Your task to perform on an android device: Open Youtube and go to the subscriptions tab Image 0: 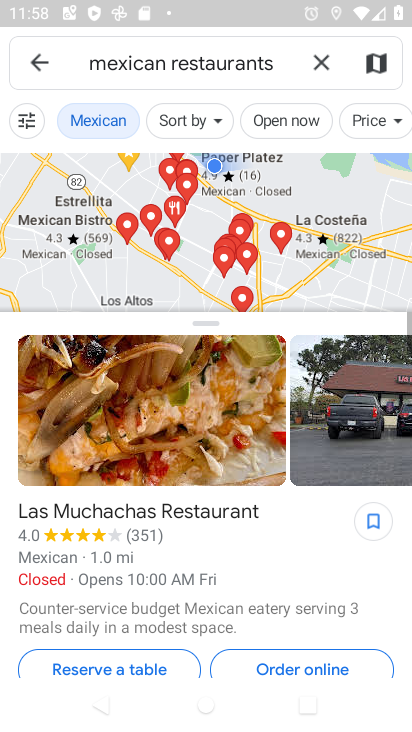
Step 0: press home button
Your task to perform on an android device: Open Youtube and go to the subscriptions tab Image 1: 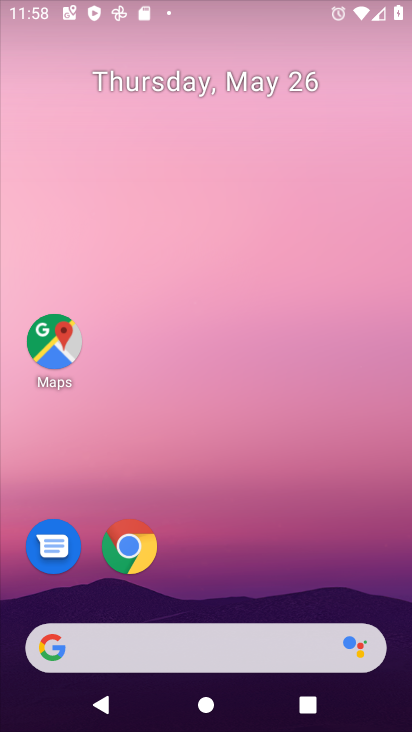
Step 1: drag from (233, 578) to (246, 96)
Your task to perform on an android device: Open Youtube and go to the subscriptions tab Image 2: 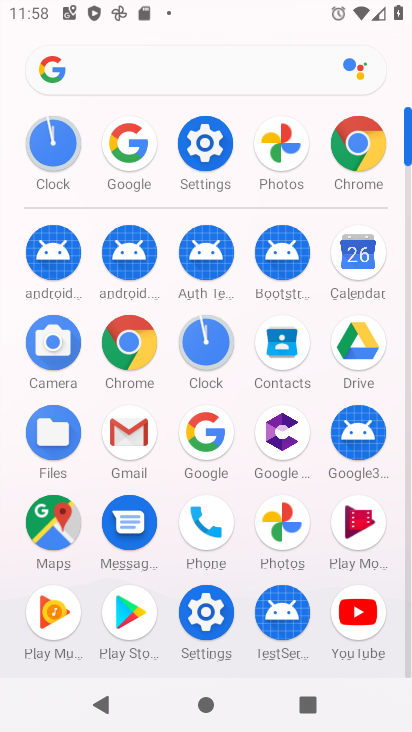
Step 2: click (354, 612)
Your task to perform on an android device: Open Youtube and go to the subscriptions tab Image 3: 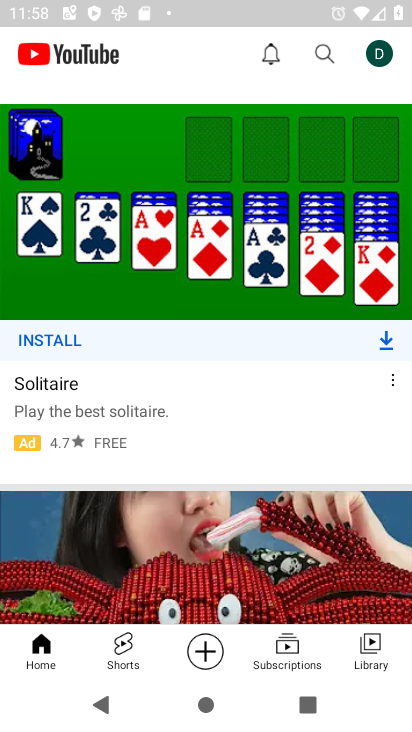
Step 3: click (307, 651)
Your task to perform on an android device: Open Youtube and go to the subscriptions tab Image 4: 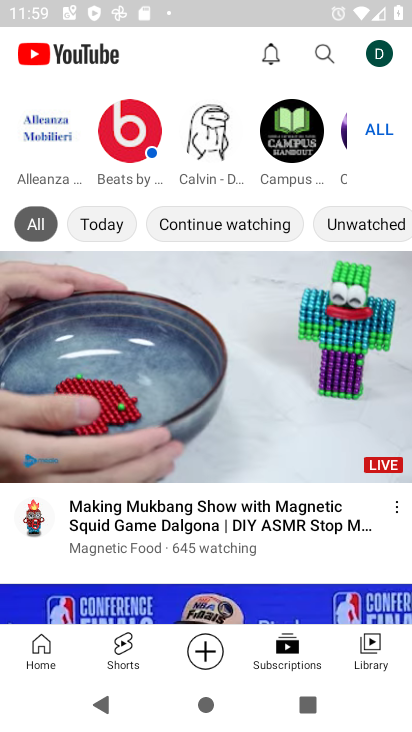
Step 4: task complete